Your task to perform on an android device: Go to wifi settings Image 0: 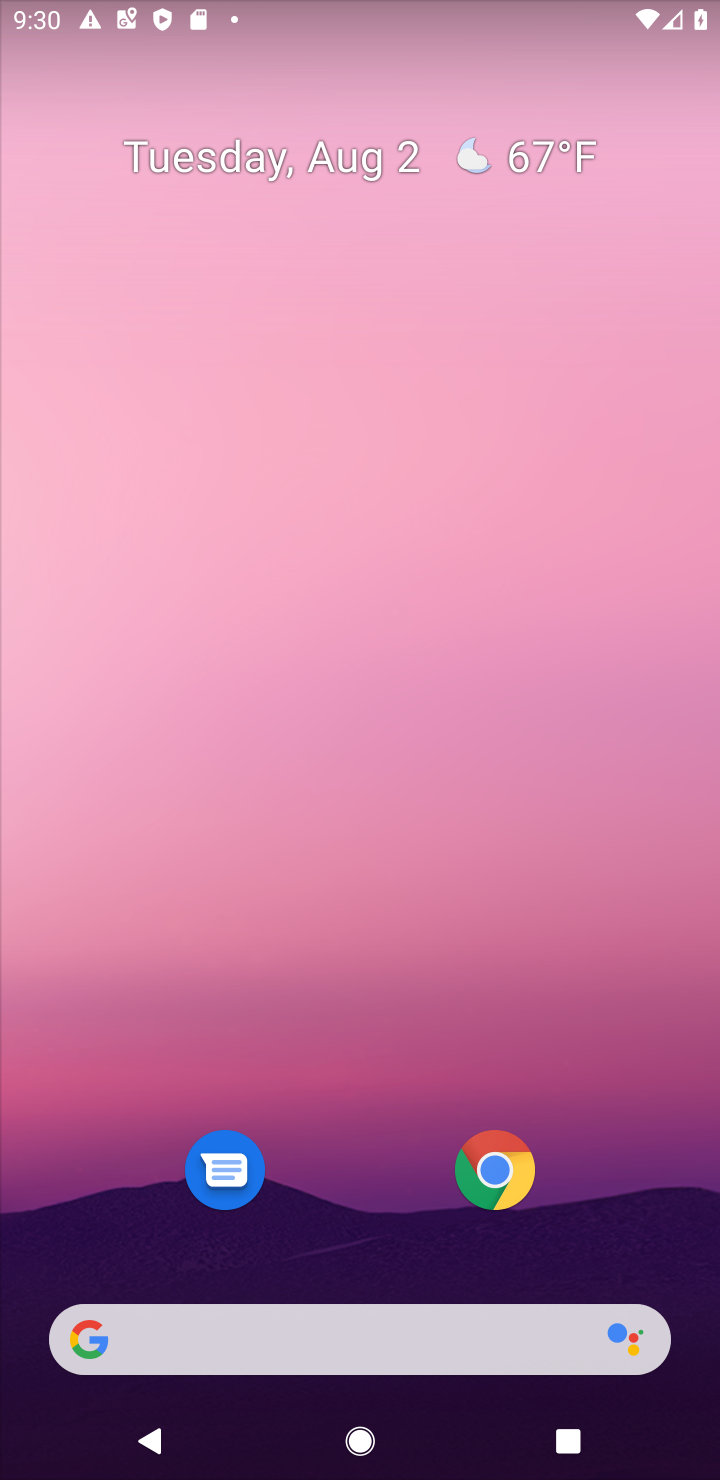
Step 0: drag from (323, 1050) to (367, 252)
Your task to perform on an android device: Go to wifi settings Image 1: 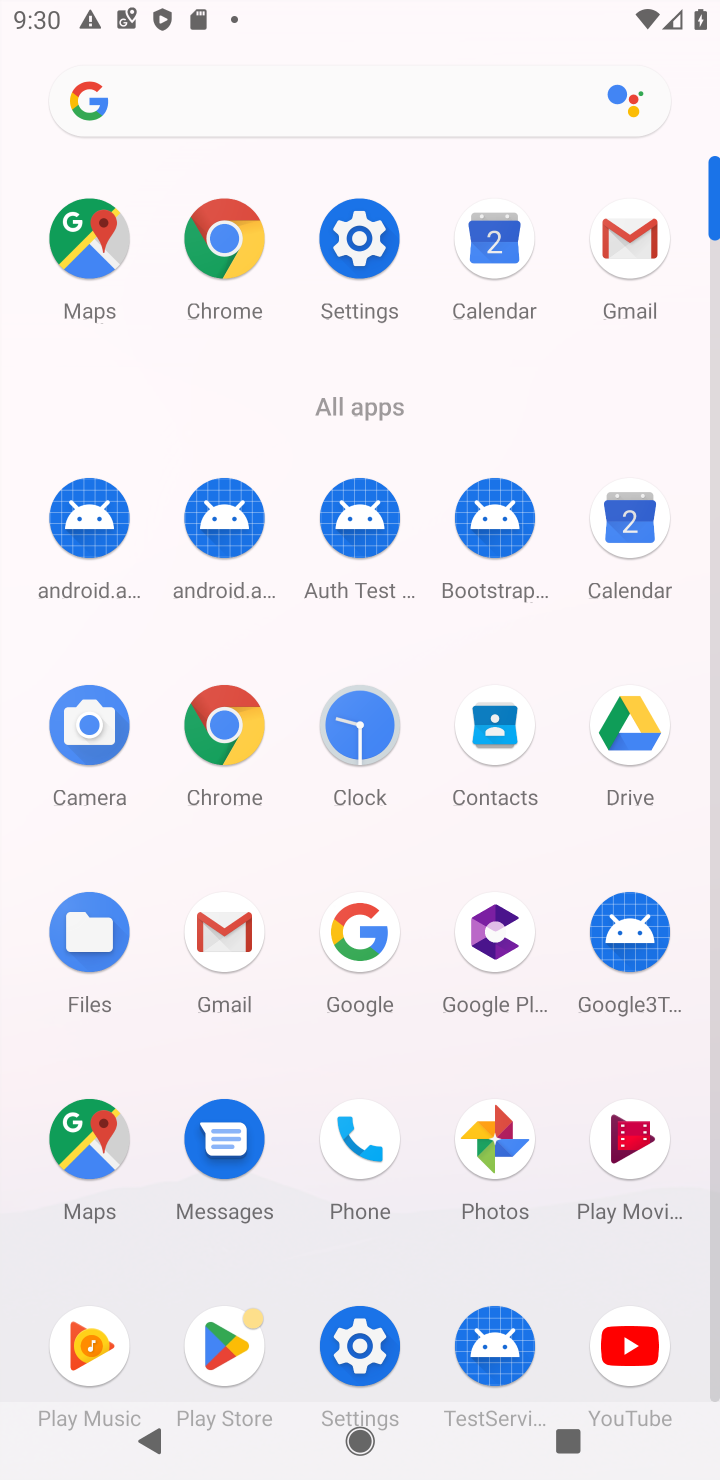
Step 1: click (346, 1338)
Your task to perform on an android device: Go to wifi settings Image 2: 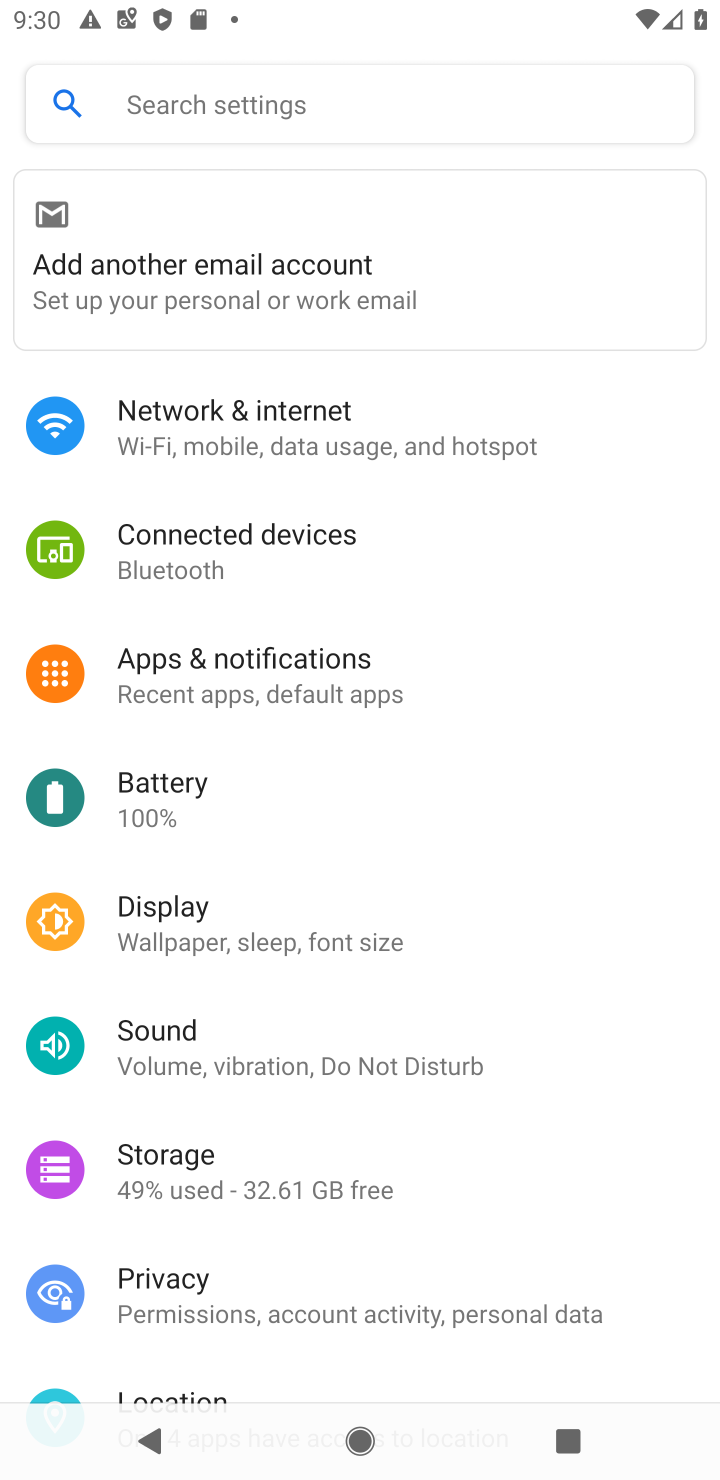
Step 2: click (216, 427)
Your task to perform on an android device: Go to wifi settings Image 3: 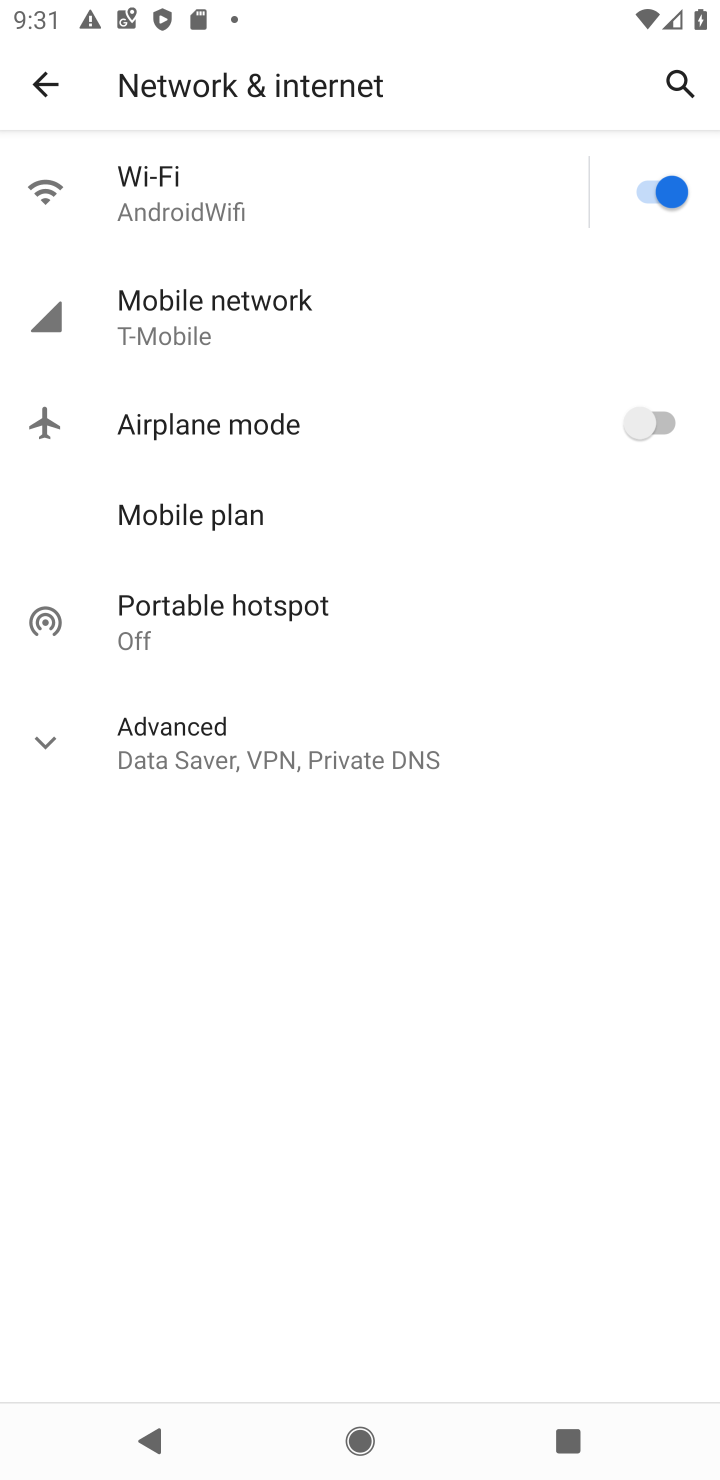
Step 3: click (190, 212)
Your task to perform on an android device: Go to wifi settings Image 4: 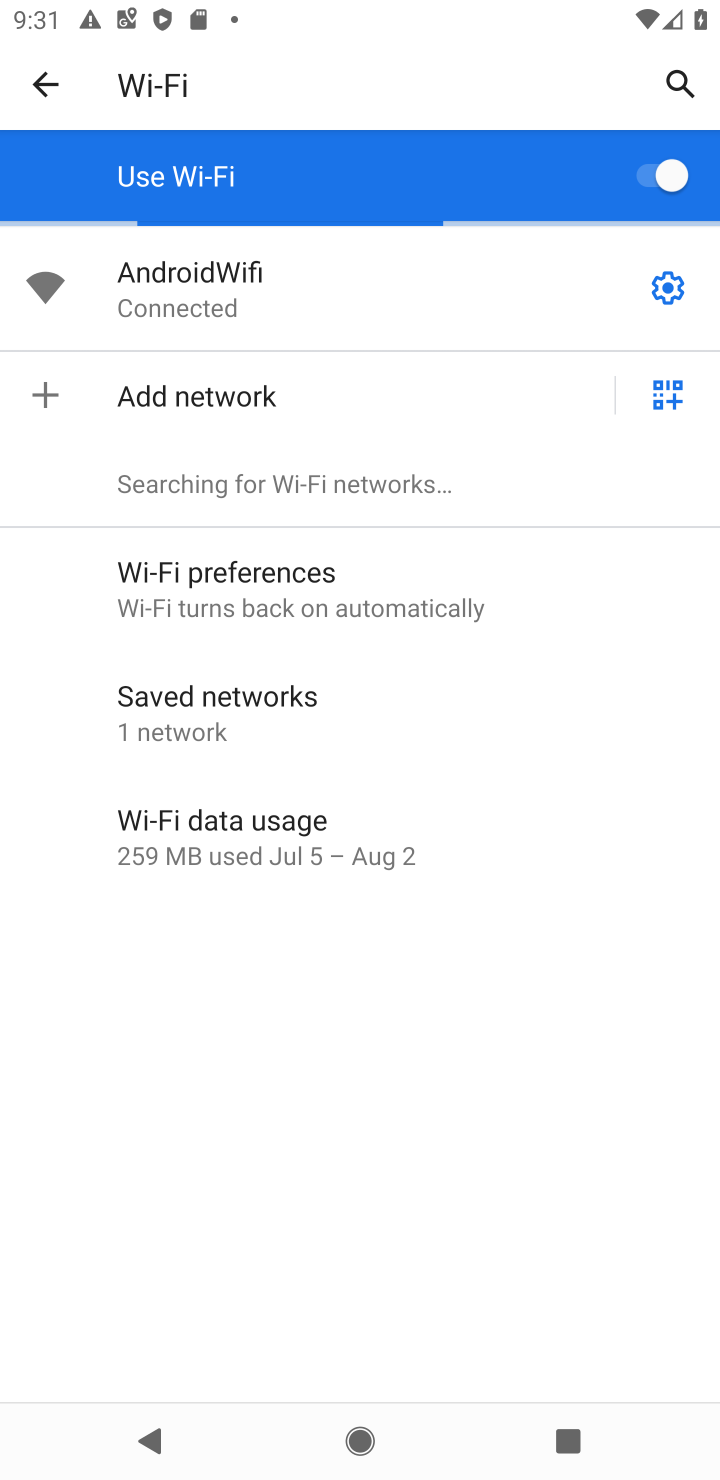
Step 4: task complete